Your task to perform on an android device: Do I have any events tomorrow? Image 0: 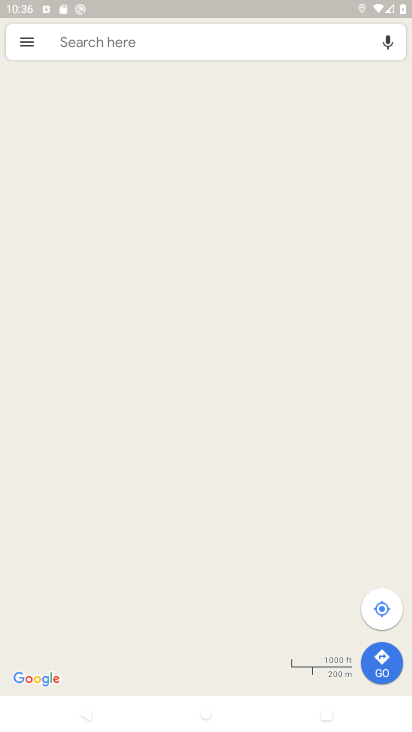
Step 0: press home button
Your task to perform on an android device: Do I have any events tomorrow? Image 1: 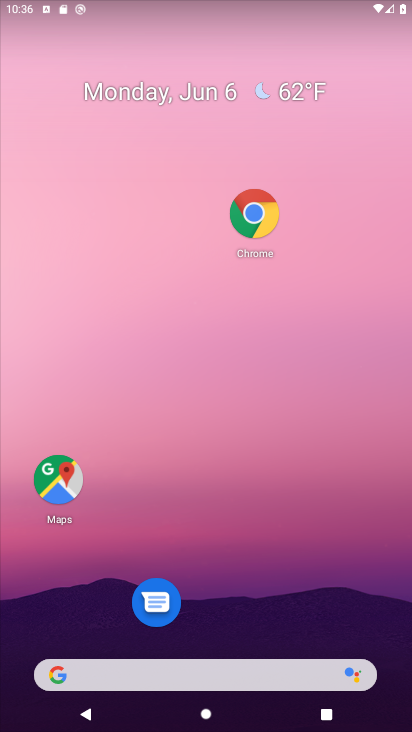
Step 1: drag from (244, 537) to (266, 190)
Your task to perform on an android device: Do I have any events tomorrow? Image 2: 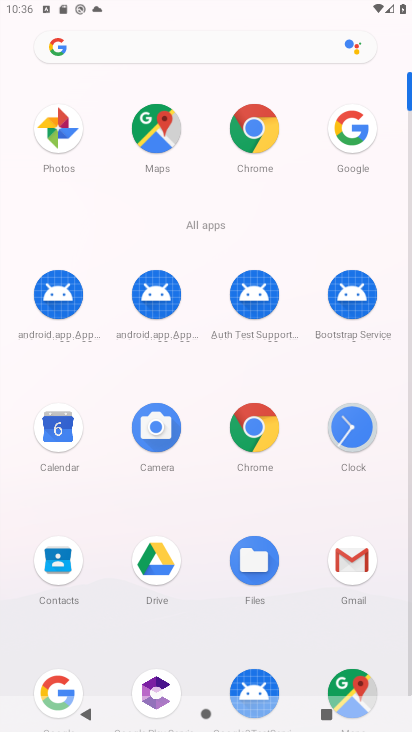
Step 2: click (61, 442)
Your task to perform on an android device: Do I have any events tomorrow? Image 3: 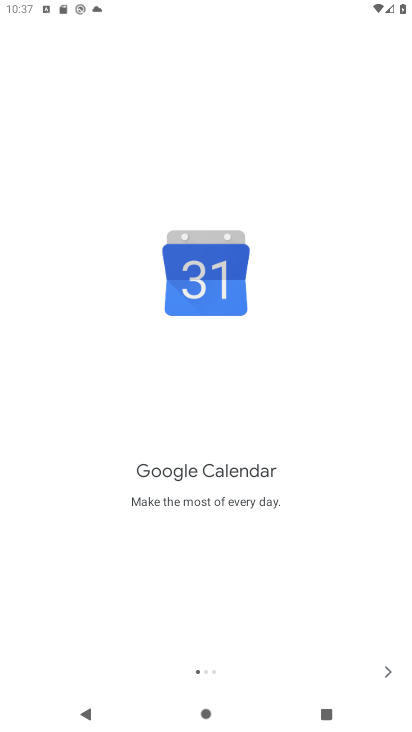
Step 3: click (61, 442)
Your task to perform on an android device: Do I have any events tomorrow? Image 4: 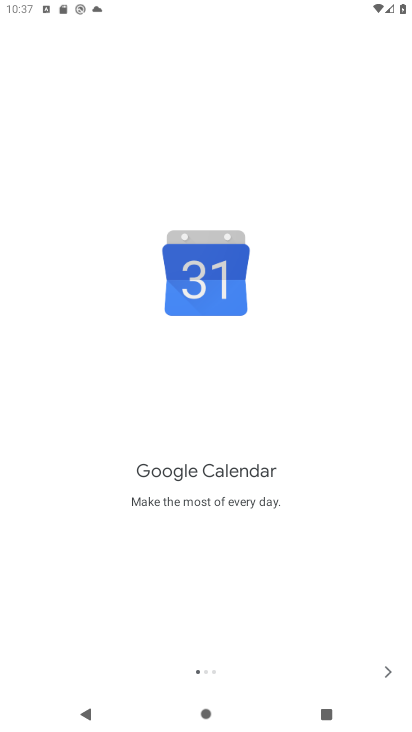
Step 4: click (387, 662)
Your task to perform on an android device: Do I have any events tomorrow? Image 5: 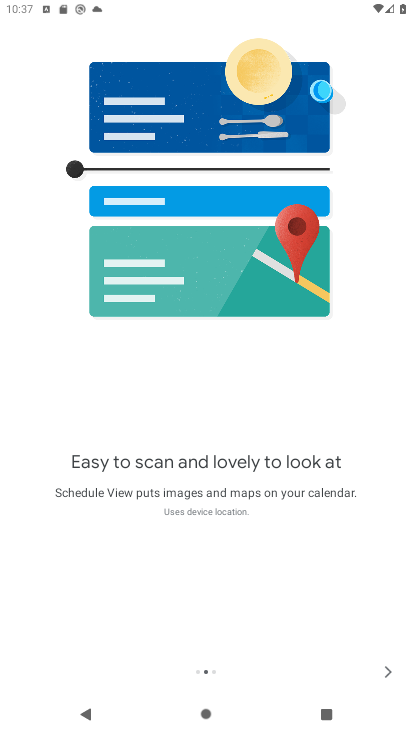
Step 5: click (387, 662)
Your task to perform on an android device: Do I have any events tomorrow? Image 6: 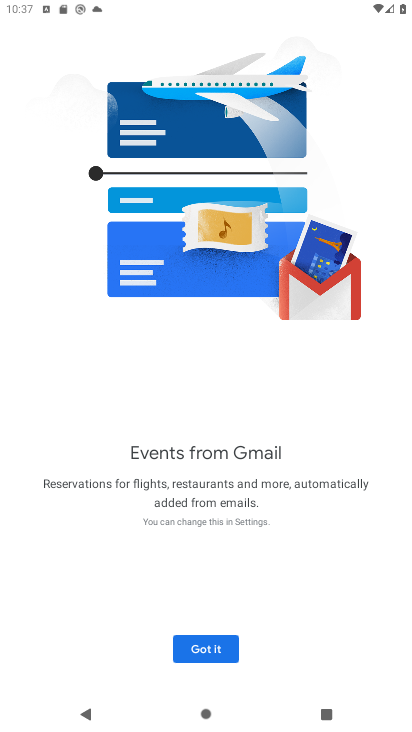
Step 6: click (214, 646)
Your task to perform on an android device: Do I have any events tomorrow? Image 7: 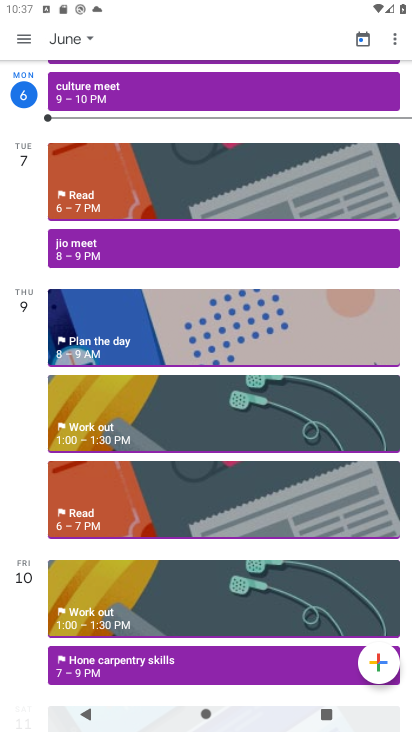
Step 7: task complete